Your task to perform on an android device: Open accessibility settings Image 0: 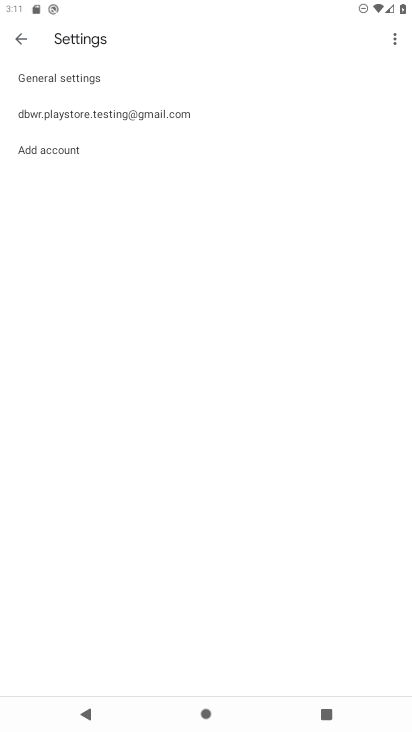
Step 0: press home button
Your task to perform on an android device: Open accessibility settings Image 1: 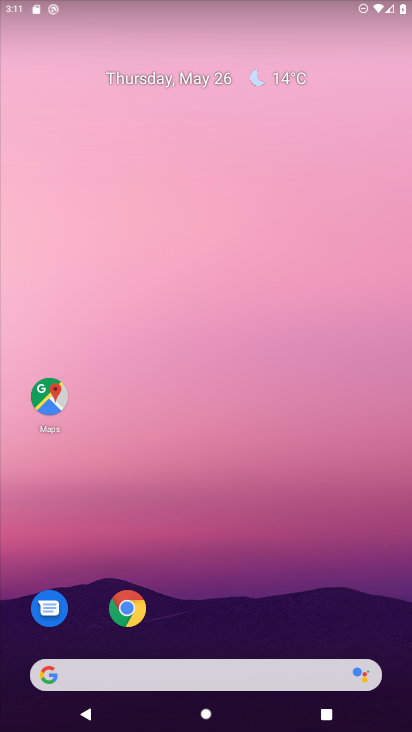
Step 1: drag from (343, 462) to (397, 7)
Your task to perform on an android device: Open accessibility settings Image 2: 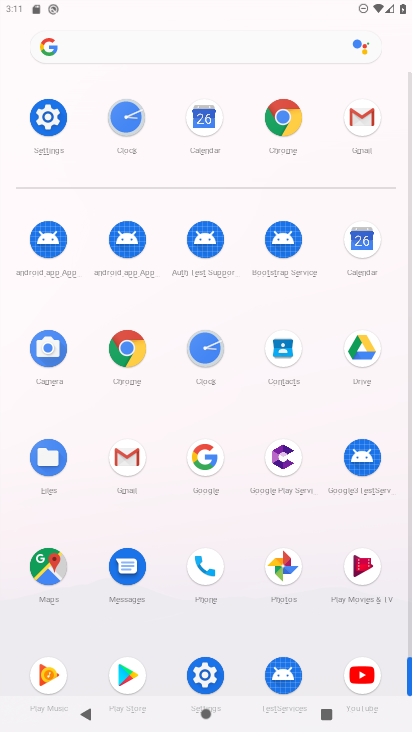
Step 2: click (51, 123)
Your task to perform on an android device: Open accessibility settings Image 3: 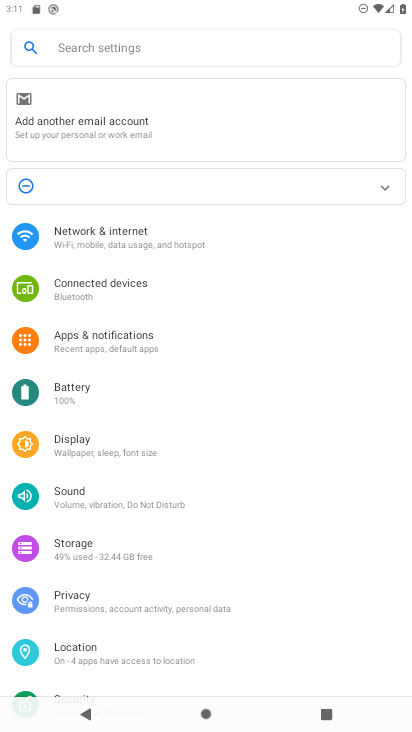
Step 3: drag from (155, 585) to (250, 220)
Your task to perform on an android device: Open accessibility settings Image 4: 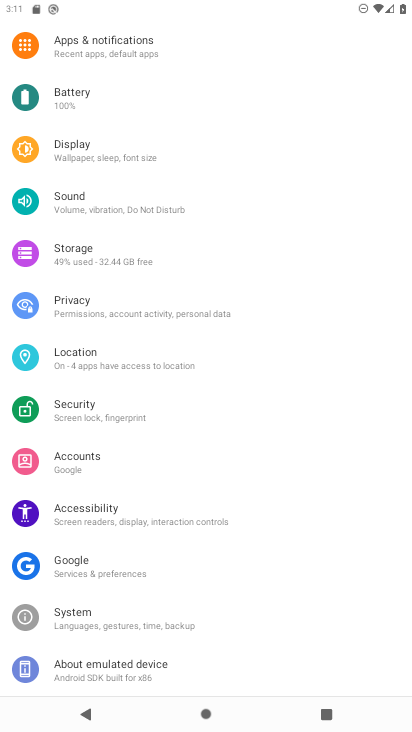
Step 4: click (104, 512)
Your task to perform on an android device: Open accessibility settings Image 5: 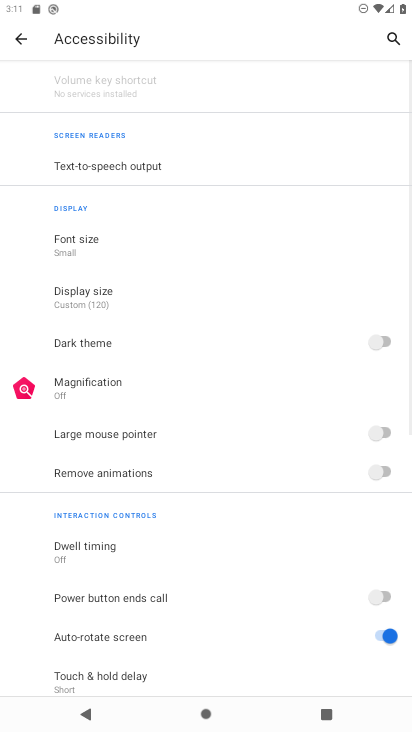
Step 5: task complete